Your task to perform on an android device: Go to Maps Image 0: 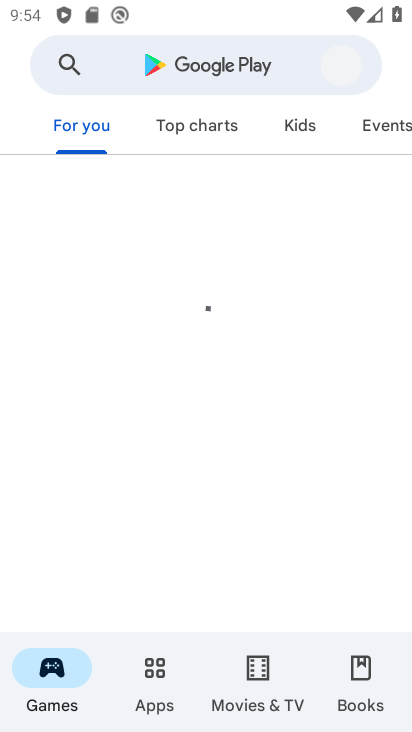
Step 0: press home button
Your task to perform on an android device: Go to Maps Image 1: 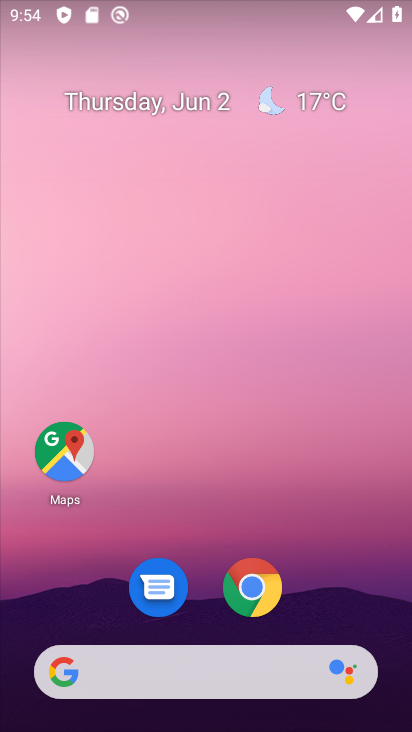
Step 1: click (63, 446)
Your task to perform on an android device: Go to Maps Image 2: 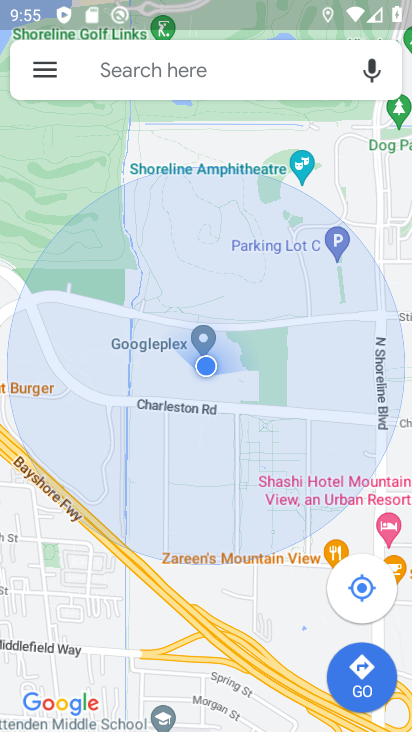
Step 2: task complete